Your task to perform on an android device: Open Google Image 0: 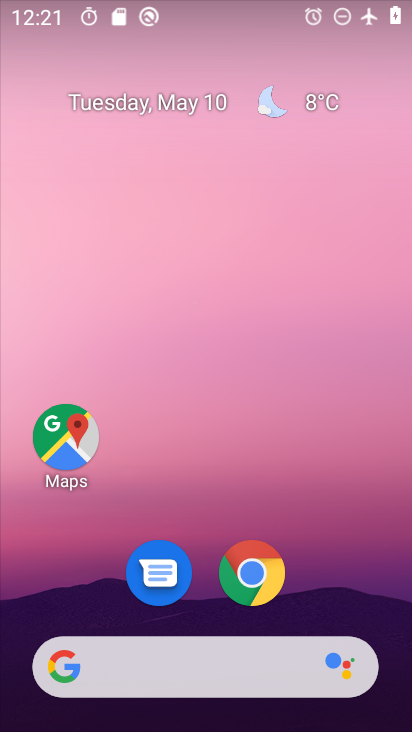
Step 0: drag from (338, 502) to (396, 76)
Your task to perform on an android device: Open Google Image 1: 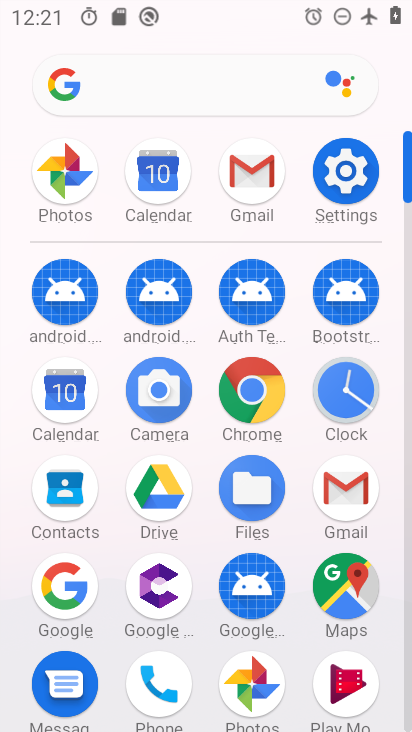
Step 1: click (77, 582)
Your task to perform on an android device: Open Google Image 2: 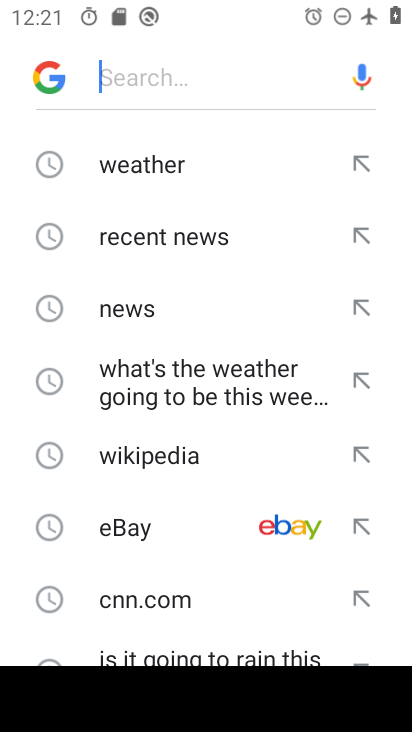
Step 2: task complete